Your task to perform on an android device: Open Google Image 0: 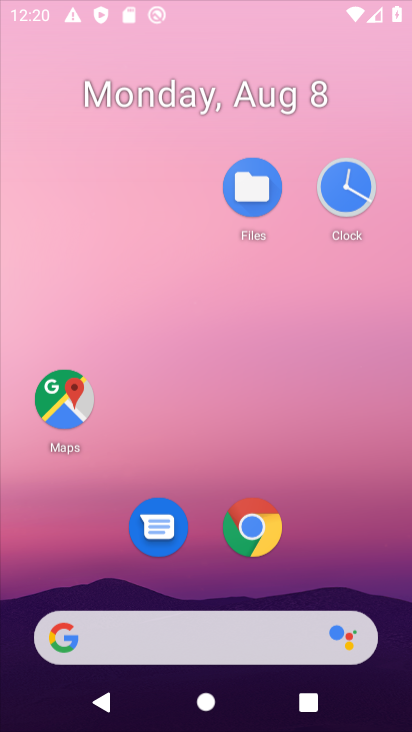
Step 0: click (204, 31)
Your task to perform on an android device: Open Google Image 1: 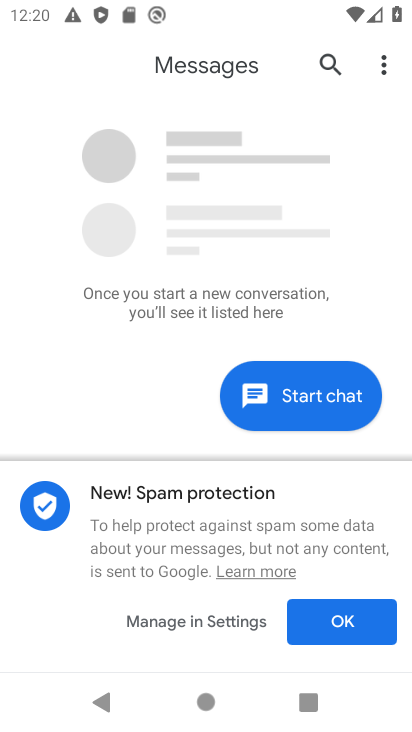
Step 1: click (331, 619)
Your task to perform on an android device: Open Google Image 2: 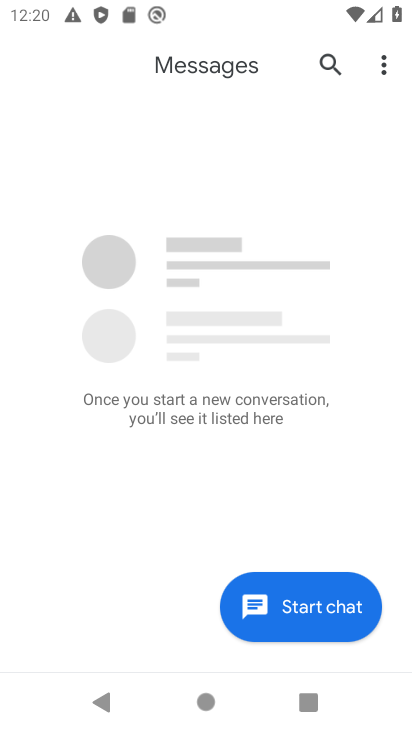
Step 2: press home button
Your task to perform on an android device: Open Google Image 3: 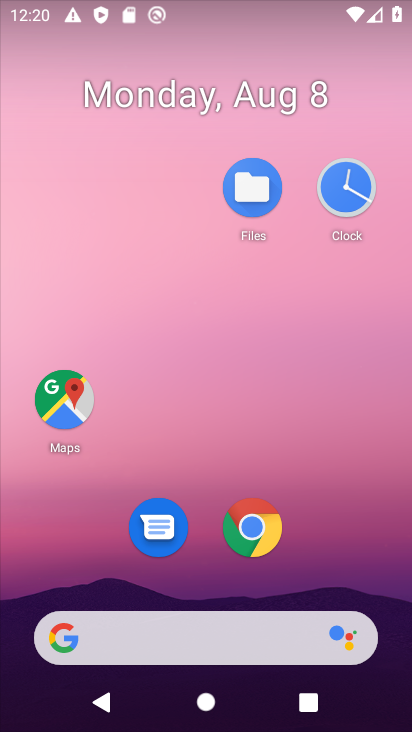
Step 3: drag from (194, 492) to (184, 298)
Your task to perform on an android device: Open Google Image 4: 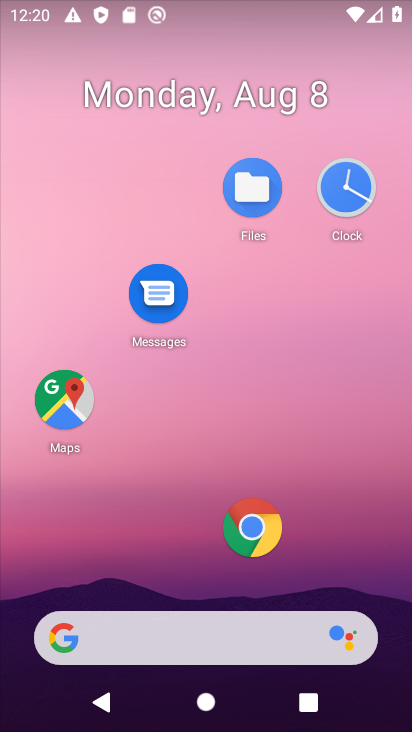
Step 4: click (300, 391)
Your task to perform on an android device: Open Google Image 5: 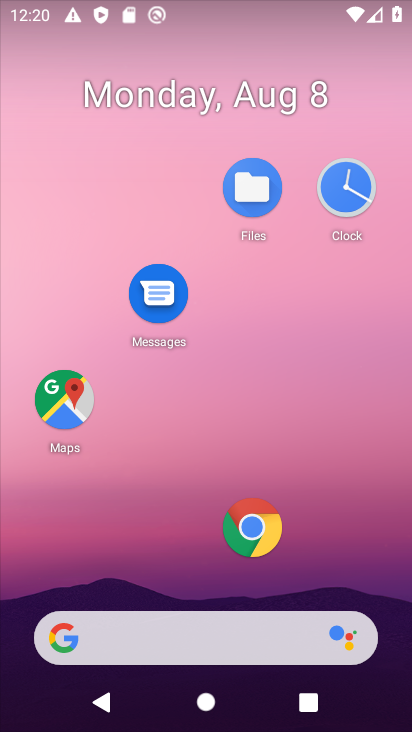
Step 5: drag from (337, 471) to (304, 115)
Your task to perform on an android device: Open Google Image 6: 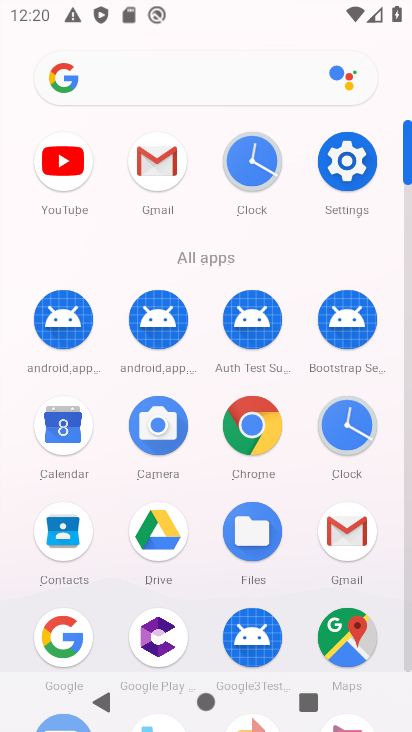
Step 6: click (57, 643)
Your task to perform on an android device: Open Google Image 7: 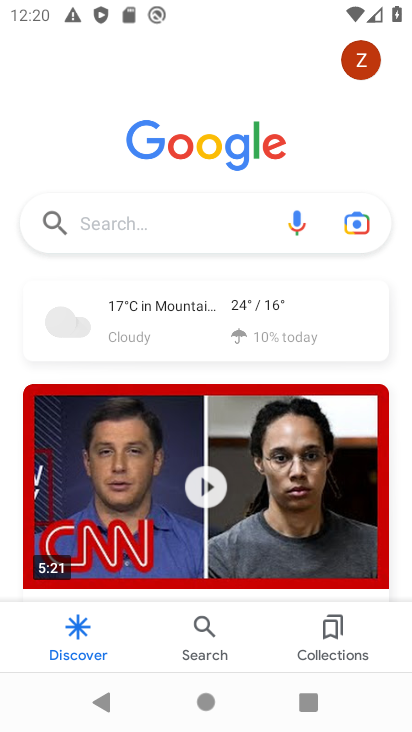
Step 7: task complete